Your task to perform on an android device: change the upload size in google photos Image 0: 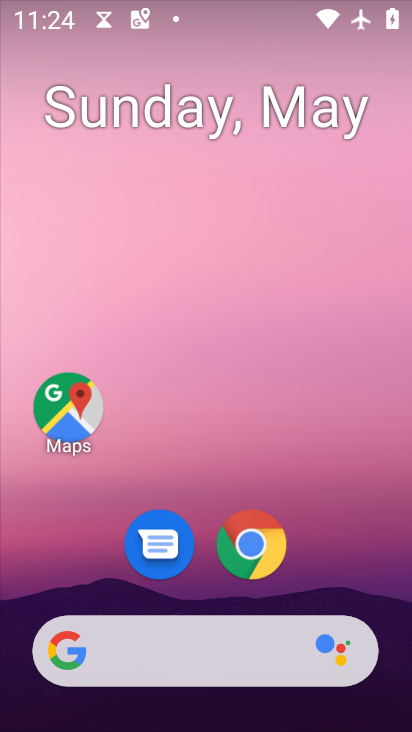
Step 0: drag from (372, 489) to (350, 272)
Your task to perform on an android device: change the upload size in google photos Image 1: 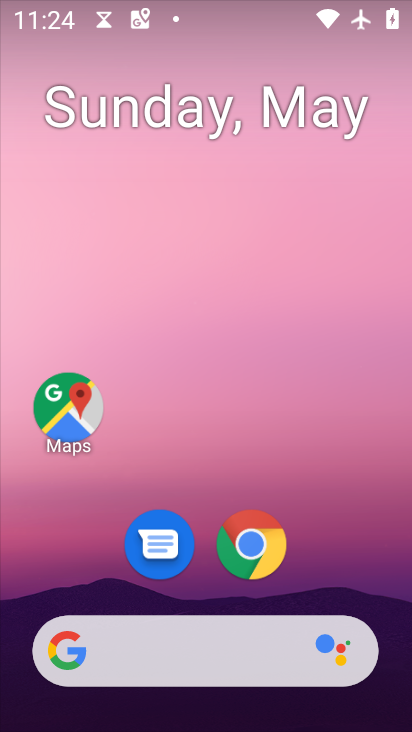
Step 1: drag from (337, 562) to (343, 304)
Your task to perform on an android device: change the upload size in google photos Image 2: 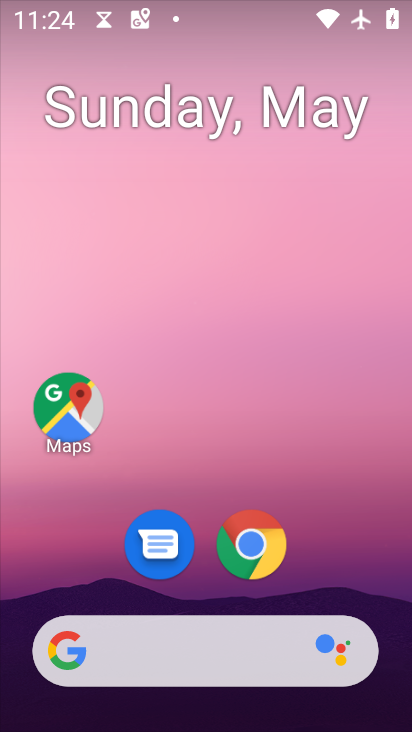
Step 2: drag from (336, 566) to (305, 360)
Your task to perform on an android device: change the upload size in google photos Image 3: 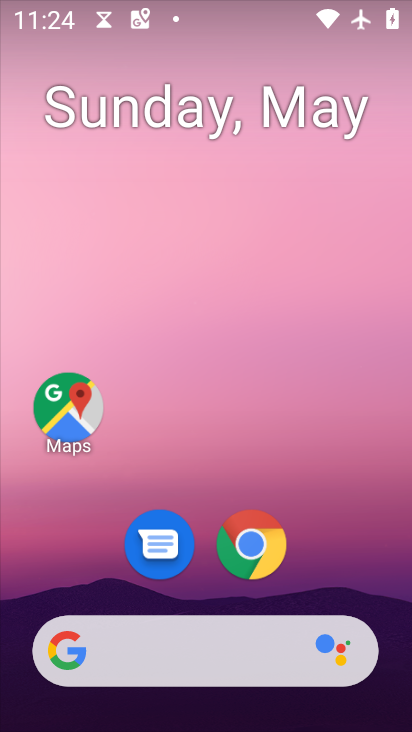
Step 3: drag from (328, 555) to (330, 189)
Your task to perform on an android device: change the upload size in google photos Image 4: 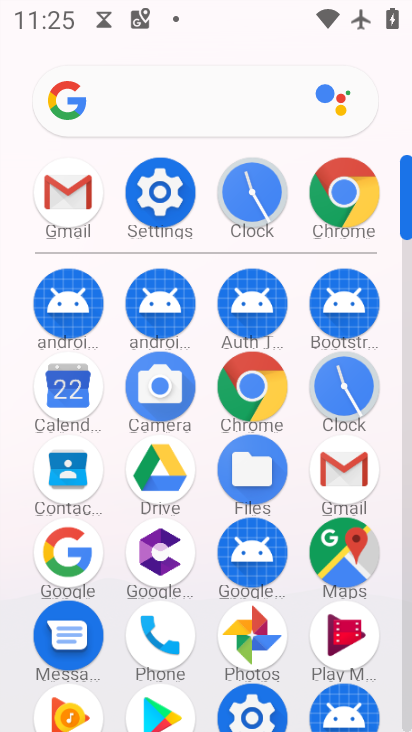
Step 4: click (242, 621)
Your task to perform on an android device: change the upload size in google photos Image 5: 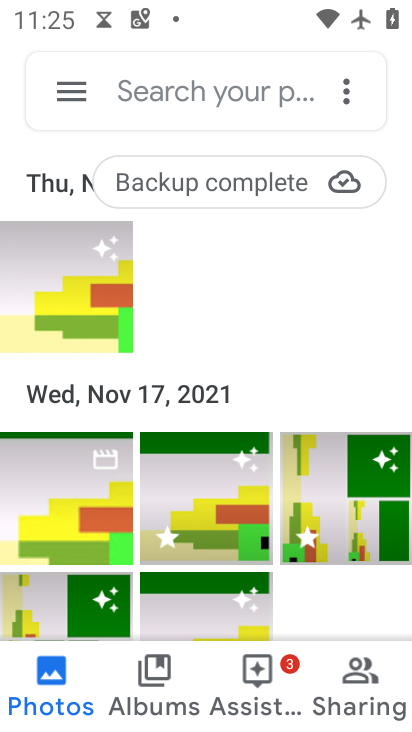
Step 5: click (59, 89)
Your task to perform on an android device: change the upload size in google photos Image 6: 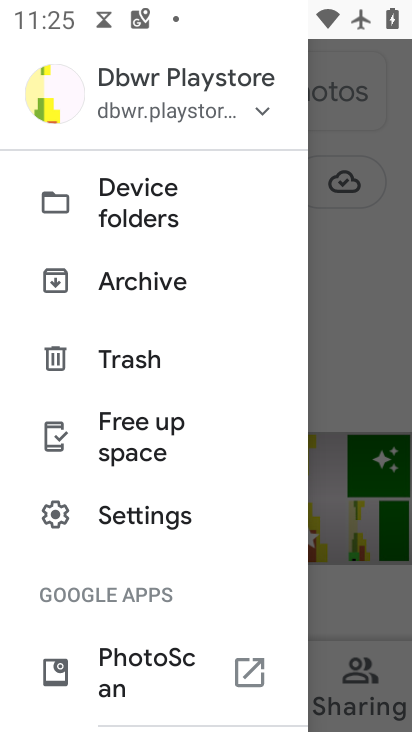
Step 6: click (185, 512)
Your task to perform on an android device: change the upload size in google photos Image 7: 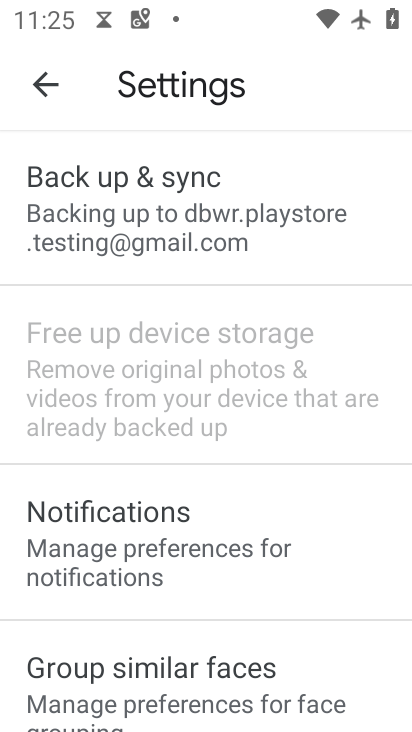
Step 7: click (198, 208)
Your task to perform on an android device: change the upload size in google photos Image 8: 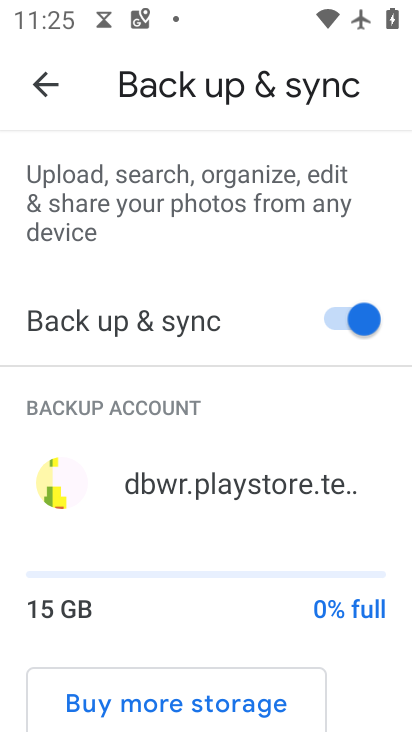
Step 8: drag from (299, 573) to (279, 263)
Your task to perform on an android device: change the upload size in google photos Image 9: 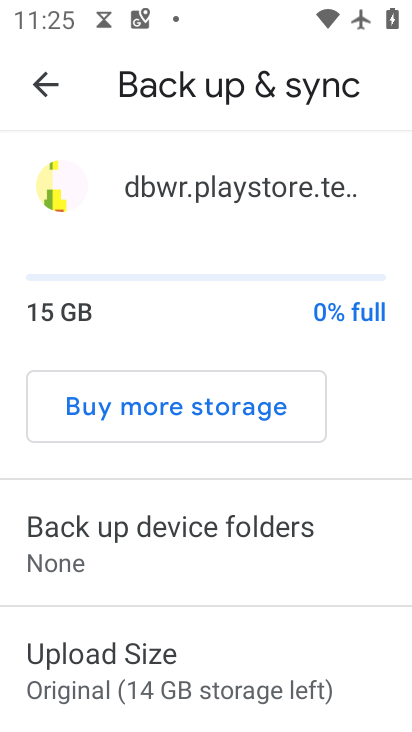
Step 9: click (212, 665)
Your task to perform on an android device: change the upload size in google photos Image 10: 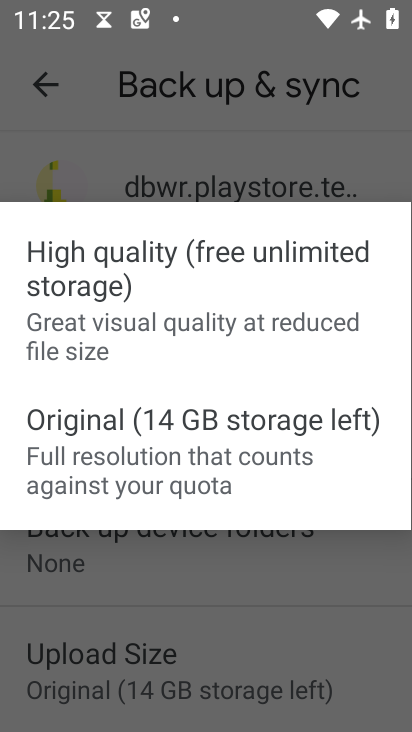
Step 10: click (160, 295)
Your task to perform on an android device: change the upload size in google photos Image 11: 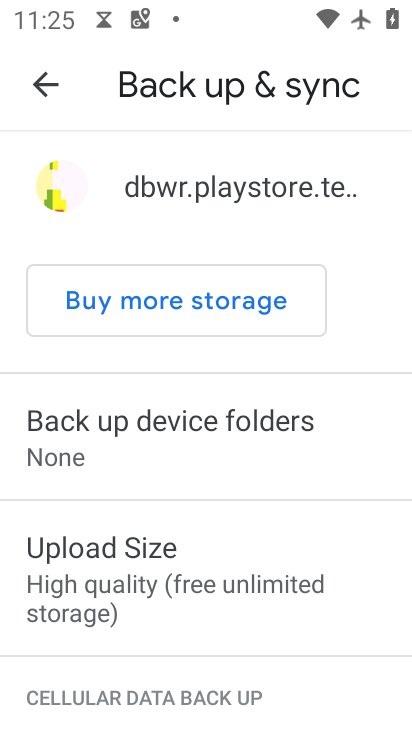
Step 11: task complete